Your task to perform on an android device: Open Youtube and go to the subscriptions tab Image 0: 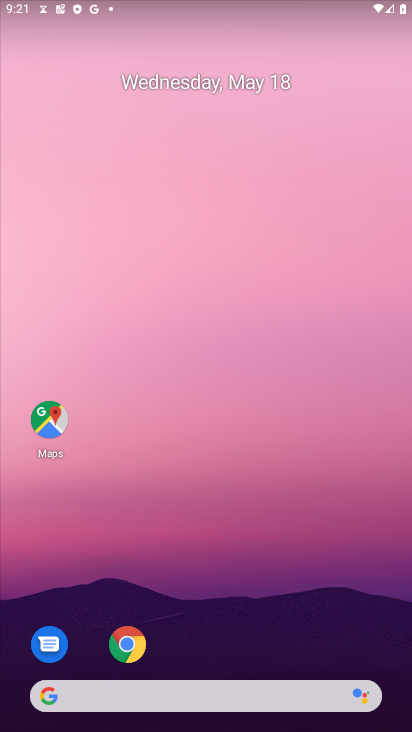
Step 0: drag from (271, 615) to (160, 115)
Your task to perform on an android device: Open Youtube and go to the subscriptions tab Image 1: 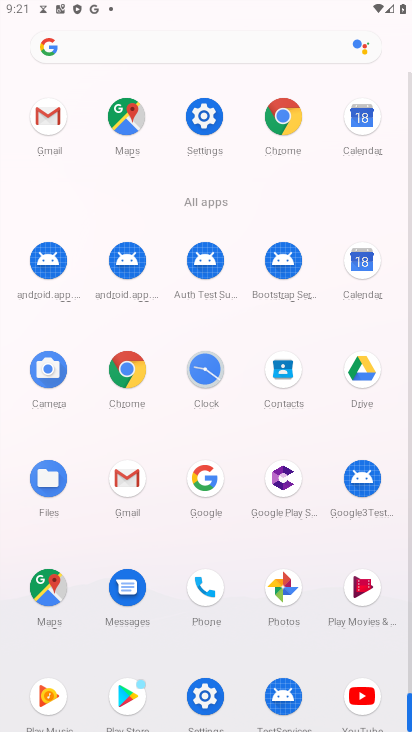
Step 1: click (361, 695)
Your task to perform on an android device: Open Youtube and go to the subscriptions tab Image 2: 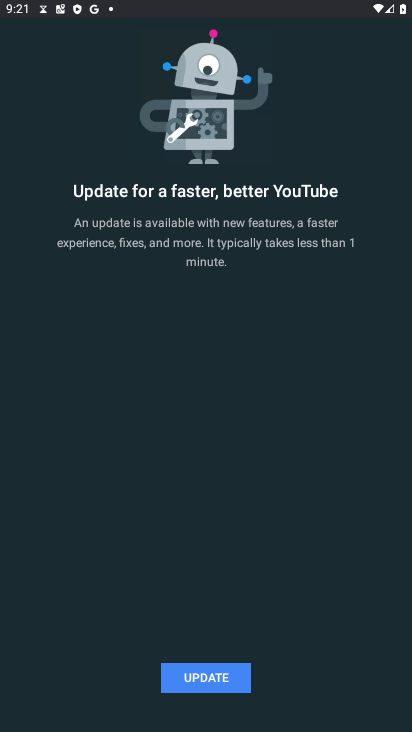
Step 2: click (219, 686)
Your task to perform on an android device: Open Youtube and go to the subscriptions tab Image 3: 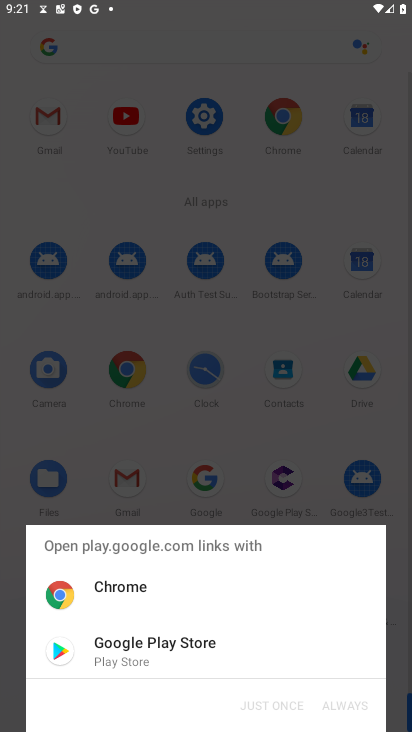
Step 3: click (122, 652)
Your task to perform on an android device: Open Youtube and go to the subscriptions tab Image 4: 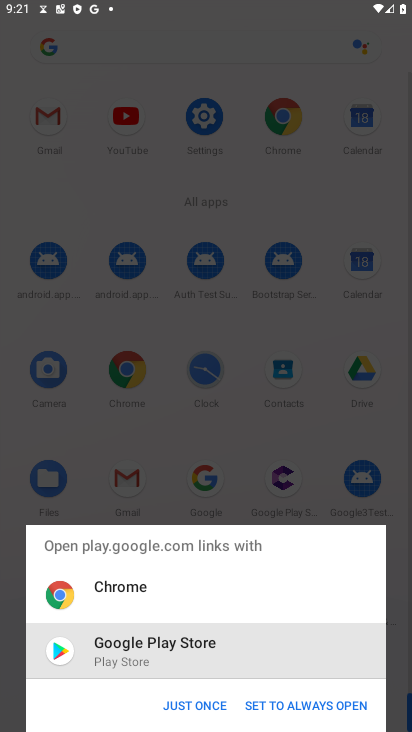
Step 4: click (176, 703)
Your task to perform on an android device: Open Youtube and go to the subscriptions tab Image 5: 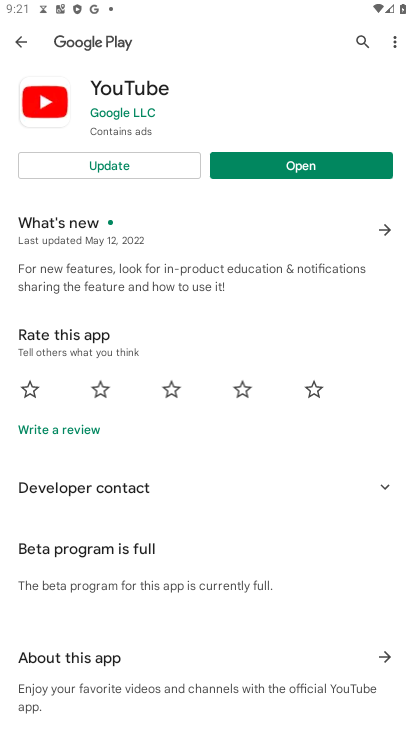
Step 5: click (166, 169)
Your task to perform on an android device: Open Youtube and go to the subscriptions tab Image 6: 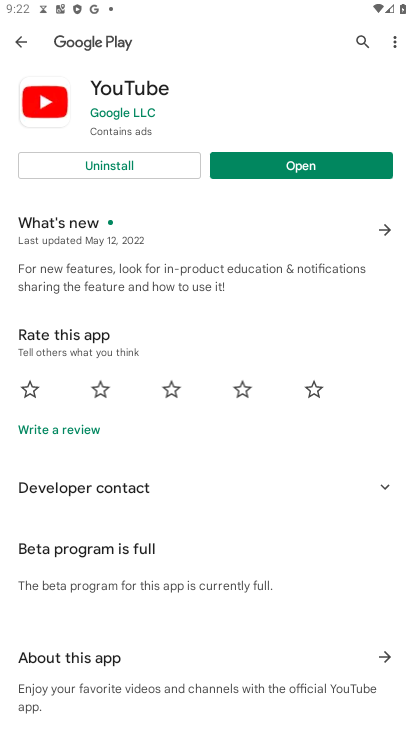
Step 6: click (297, 164)
Your task to perform on an android device: Open Youtube and go to the subscriptions tab Image 7: 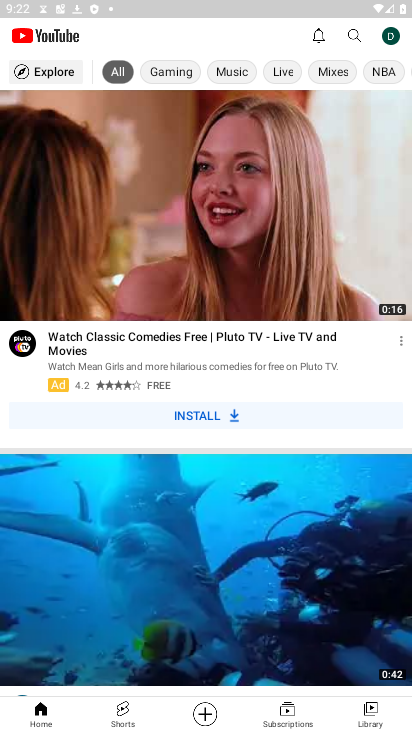
Step 7: click (289, 714)
Your task to perform on an android device: Open Youtube and go to the subscriptions tab Image 8: 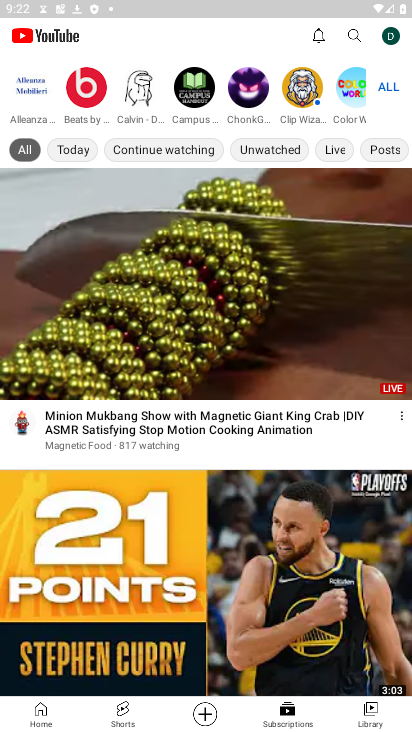
Step 8: task complete